Your task to perform on an android device: What's the weather? Image 0: 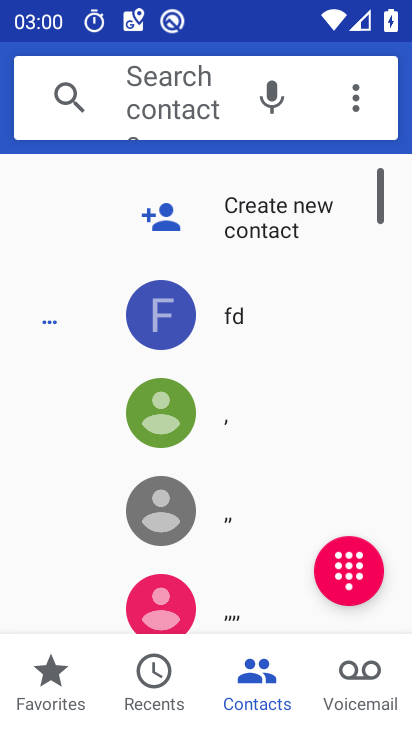
Step 0: press home button
Your task to perform on an android device: What's the weather? Image 1: 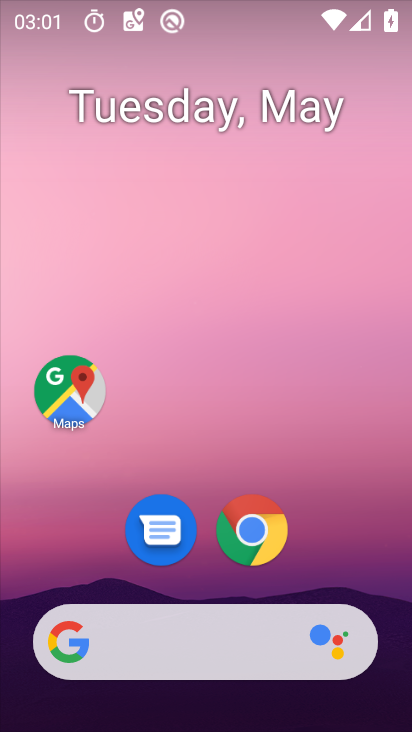
Step 1: click (124, 650)
Your task to perform on an android device: What's the weather? Image 2: 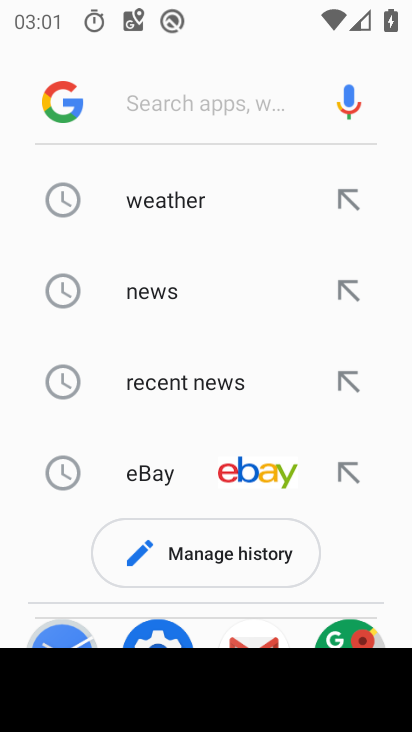
Step 2: click (215, 213)
Your task to perform on an android device: What's the weather? Image 3: 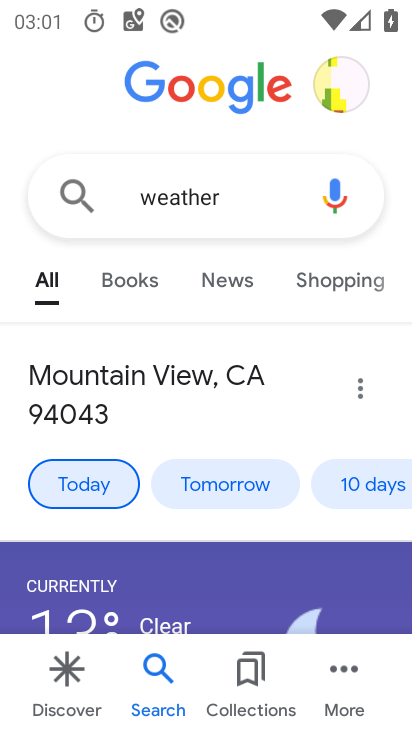
Step 3: task complete